Your task to perform on an android device: install app "Spotify" Image 0: 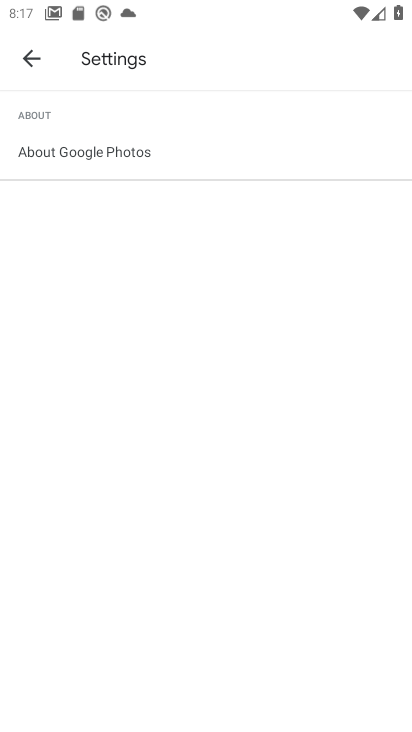
Step 0: press home button
Your task to perform on an android device: install app "Spotify" Image 1: 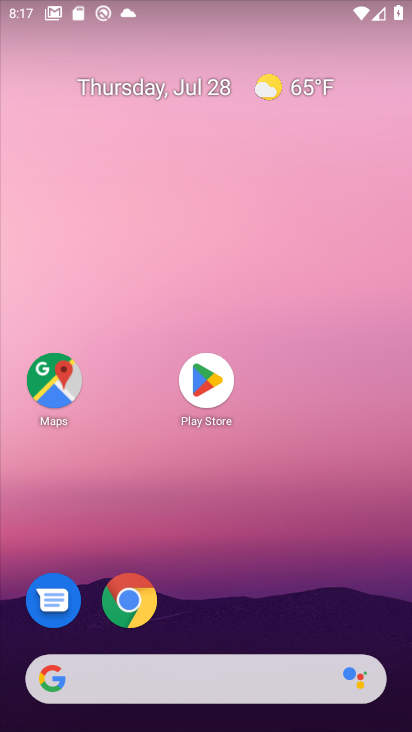
Step 1: click (192, 393)
Your task to perform on an android device: install app "Spotify" Image 2: 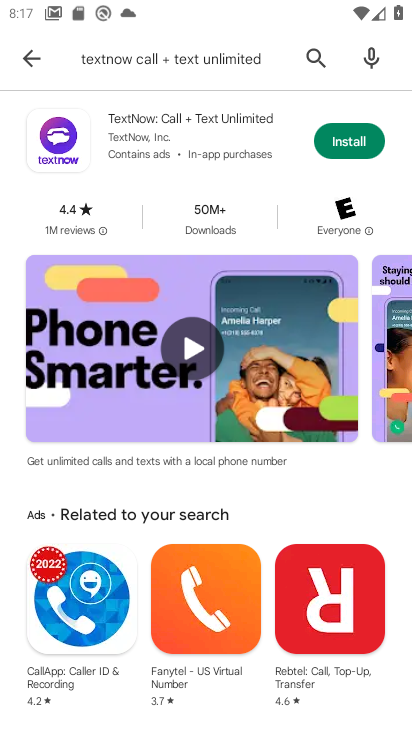
Step 2: click (314, 48)
Your task to perform on an android device: install app "Spotify" Image 3: 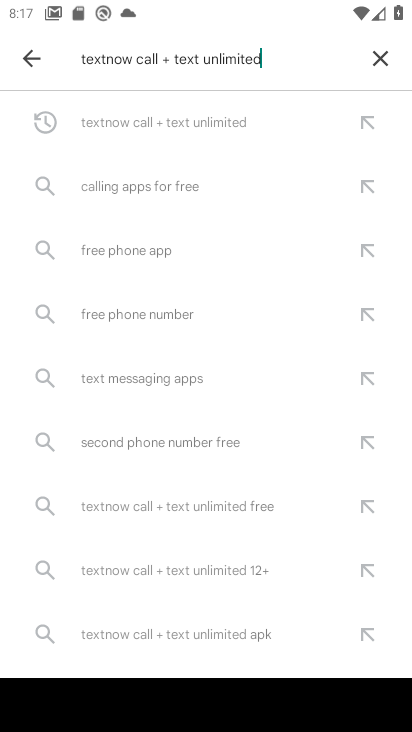
Step 3: click (379, 52)
Your task to perform on an android device: install app "Spotify" Image 4: 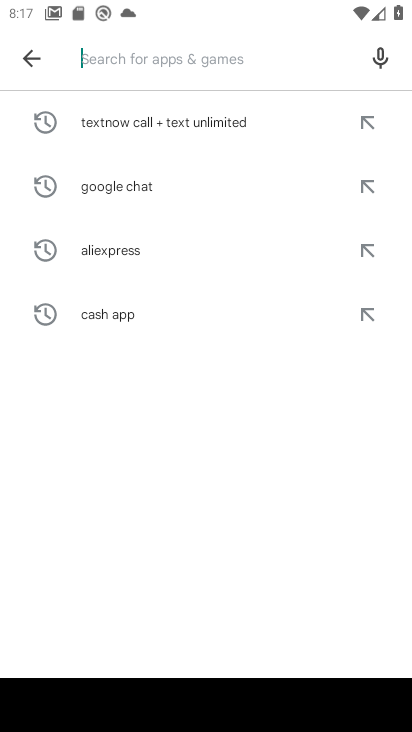
Step 4: type "Spotify"
Your task to perform on an android device: install app "Spotify" Image 5: 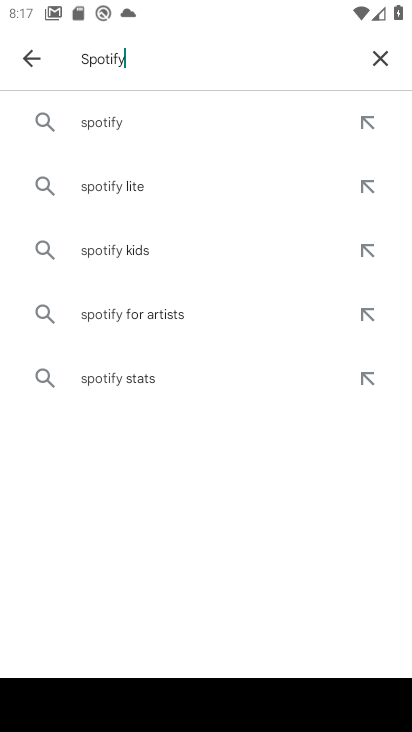
Step 5: click (112, 120)
Your task to perform on an android device: install app "Spotify" Image 6: 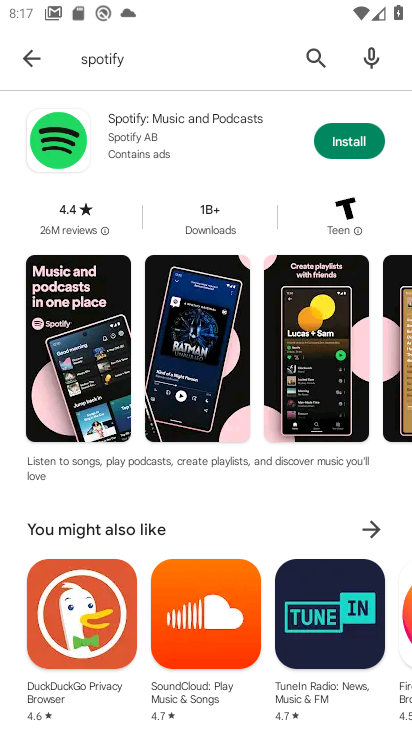
Step 6: click (344, 138)
Your task to perform on an android device: install app "Spotify" Image 7: 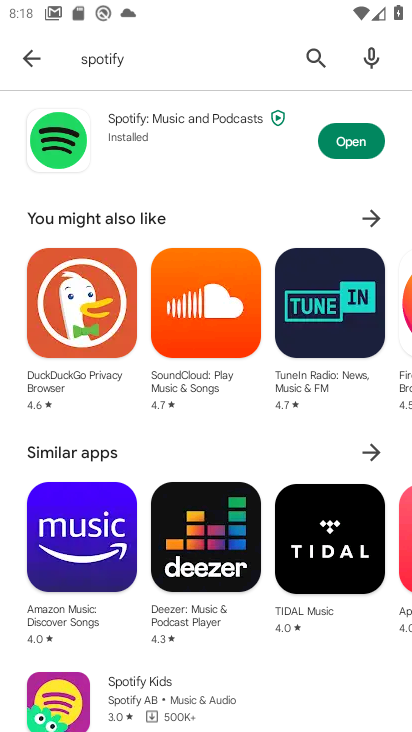
Step 7: task complete